Your task to perform on an android device: toggle show notifications on the lock screen Image 0: 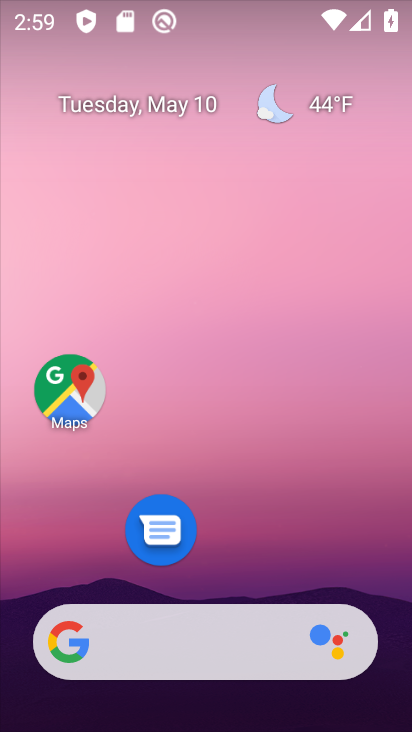
Step 0: drag from (243, 565) to (256, 104)
Your task to perform on an android device: toggle show notifications on the lock screen Image 1: 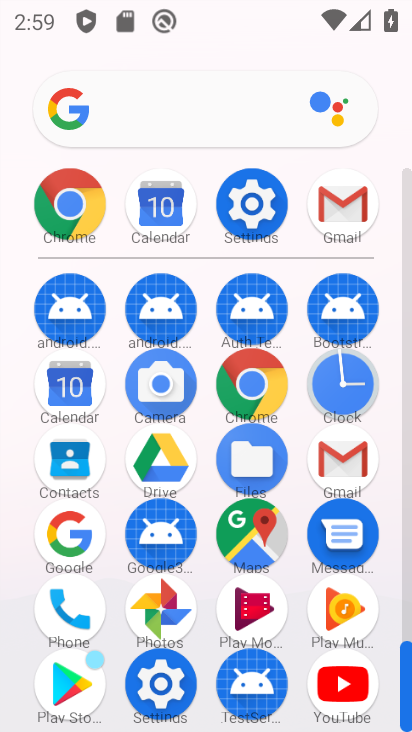
Step 1: click (261, 205)
Your task to perform on an android device: toggle show notifications on the lock screen Image 2: 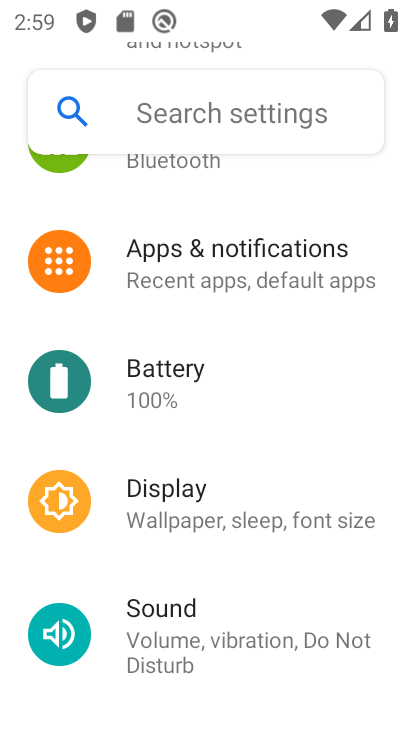
Step 2: drag from (187, 205) to (233, 527)
Your task to perform on an android device: toggle show notifications on the lock screen Image 3: 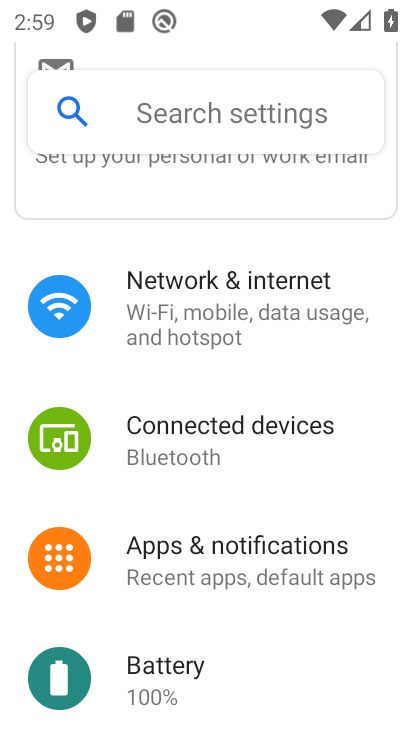
Step 3: click (206, 552)
Your task to perform on an android device: toggle show notifications on the lock screen Image 4: 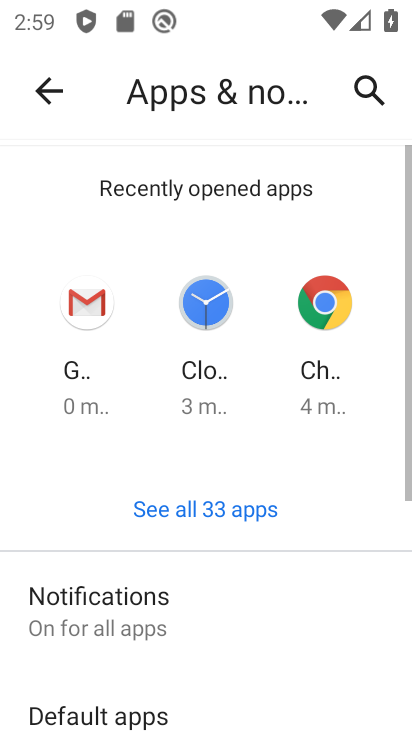
Step 4: click (145, 619)
Your task to perform on an android device: toggle show notifications on the lock screen Image 5: 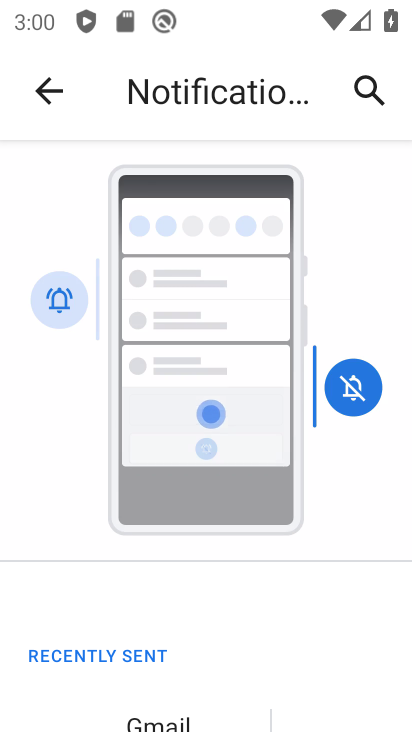
Step 5: drag from (243, 618) to (246, 105)
Your task to perform on an android device: toggle show notifications on the lock screen Image 6: 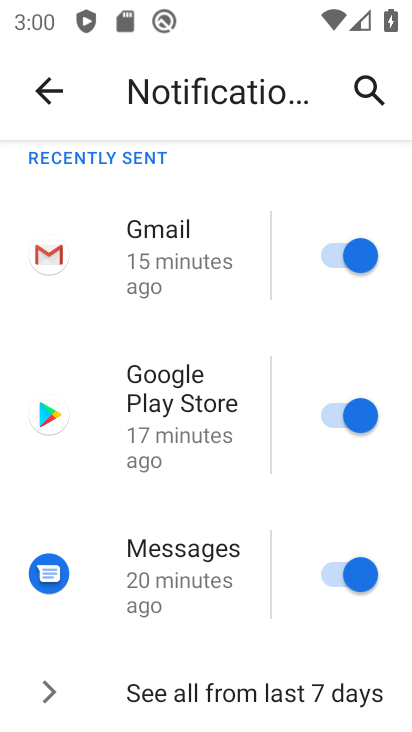
Step 6: drag from (199, 637) to (237, 220)
Your task to perform on an android device: toggle show notifications on the lock screen Image 7: 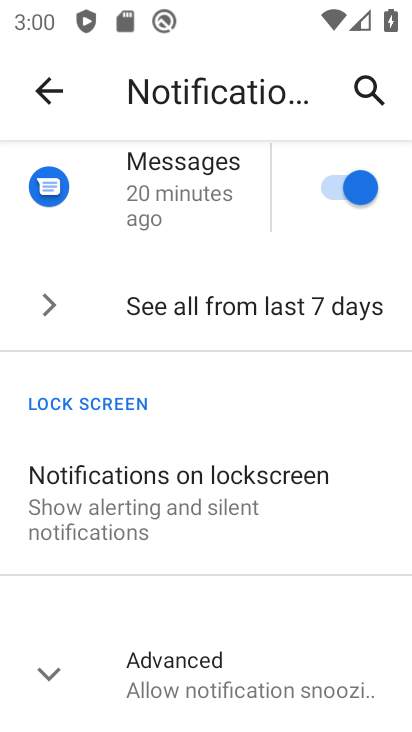
Step 7: click (194, 526)
Your task to perform on an android device: toggle show notifications on the lock screen Image 8: 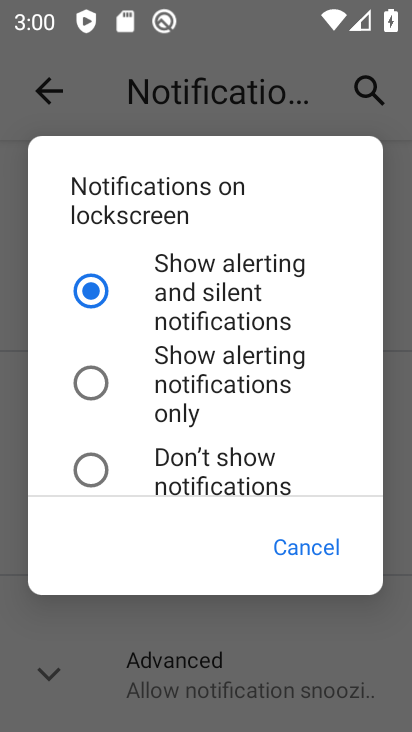
Step 8: click (97, 468)
Your task to perform on an android device: toggle show notifications on the lock screen Image 9: 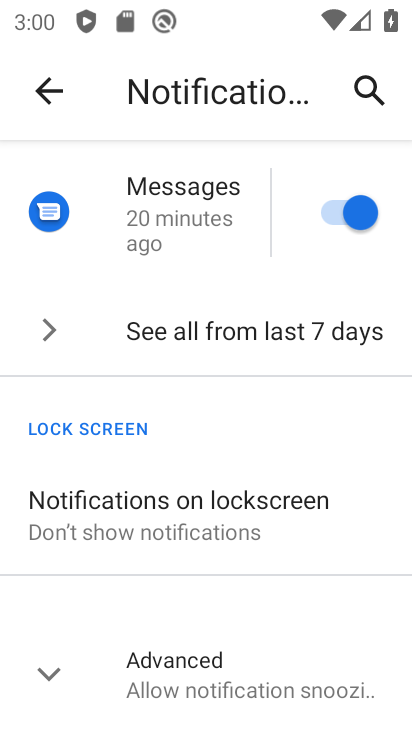
Step 9: task complete